Your task to perform on an android device: clear history in the chrome app Image 0: 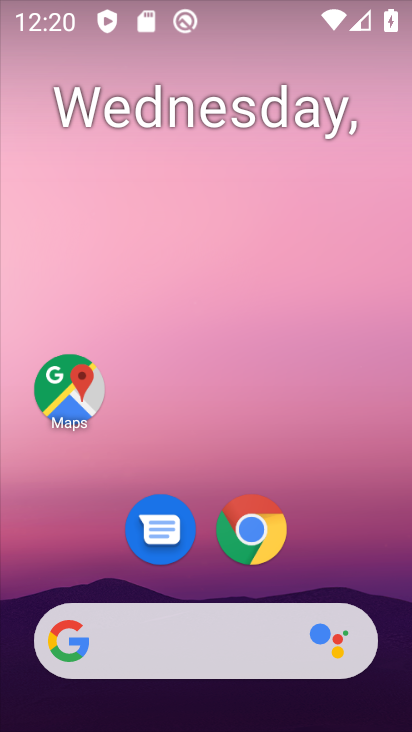
Step 0: click (249, 531)
Your task to perform on an android device: clear history in the chrome app Image 1: 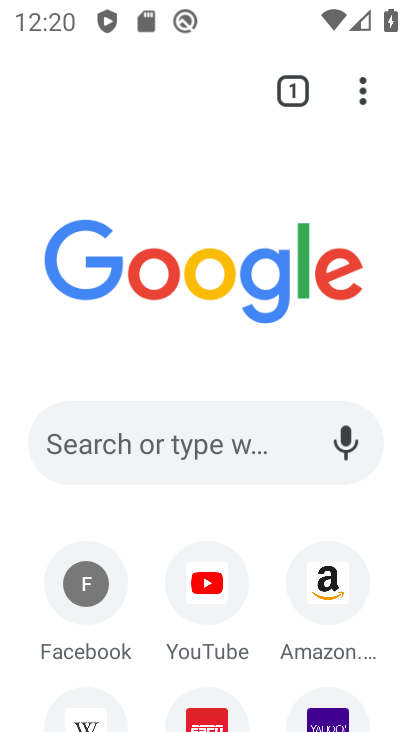
Step 1: click (356, 99)
Your task to perform on an android device: clear history in the chrome app Image 2: 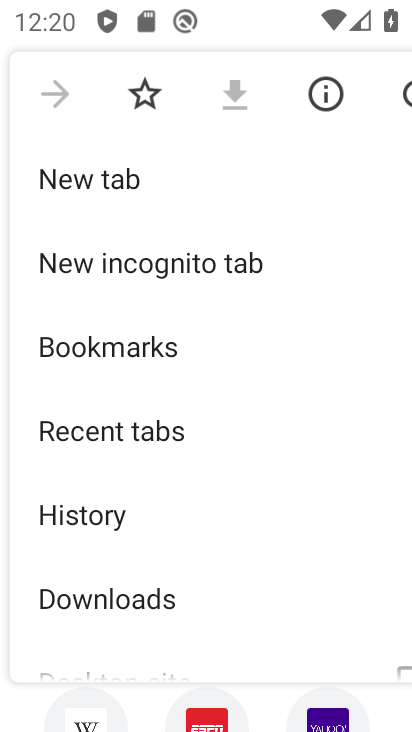
Step 2: click (63, 510)
Your task to perform on an android device: clear history in the chrome app Image 3: 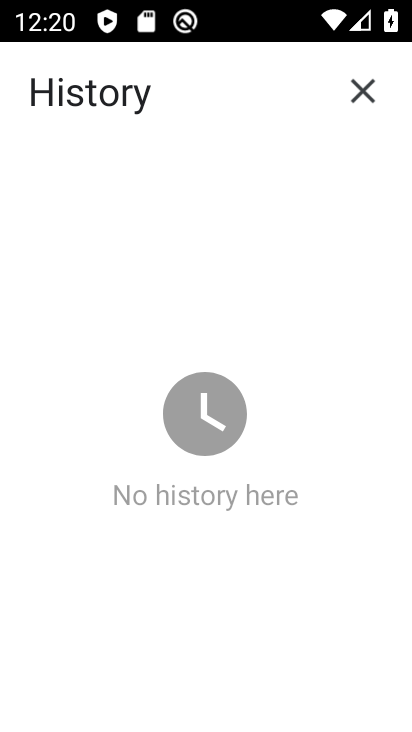
Step 3: task complete